Your task to perform on an android device: Go to Google Image 0: 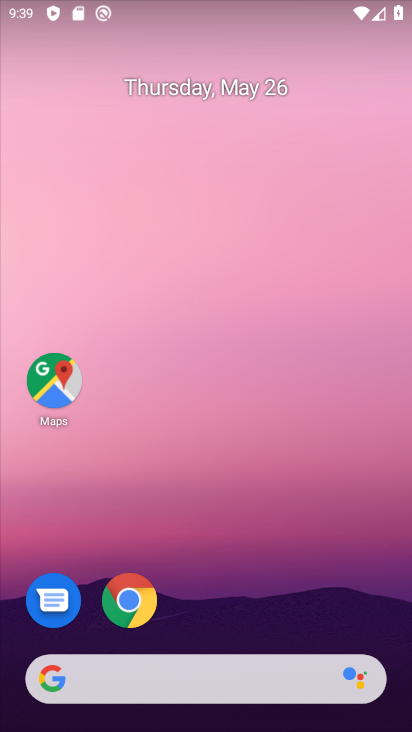
Step 0: drag from (309, 539) to (280, 53)
Your task to perform on an android device: Go to Google Image 1: 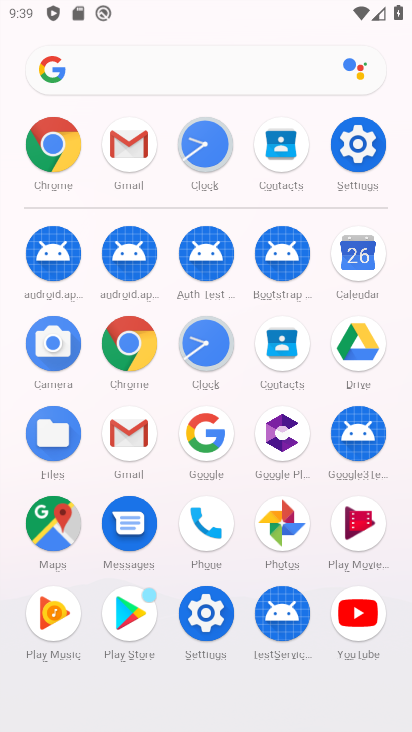
Step 1: click (217, 439)
Your task to perform on an android device: Go to Google Image 2: 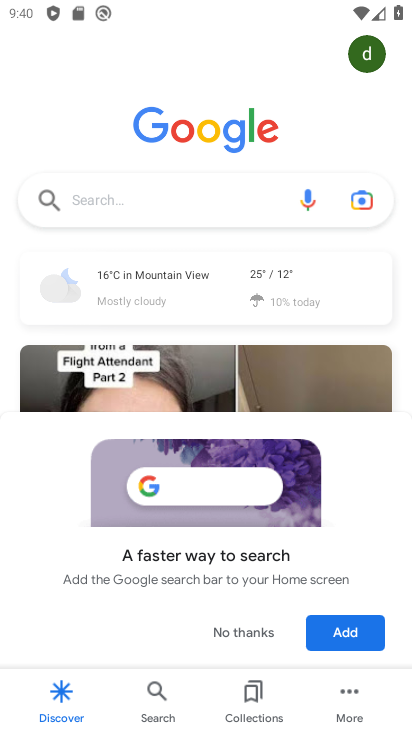
Step 2: task complete